Your task to perform on an android device: Open CNN.com Image 0: 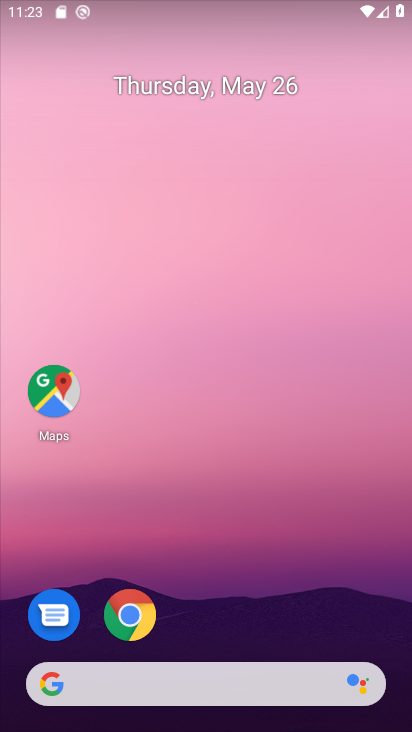
Step 0: click (173, 678)
Your task to perform on an android device: Open CNN.com Image 1: 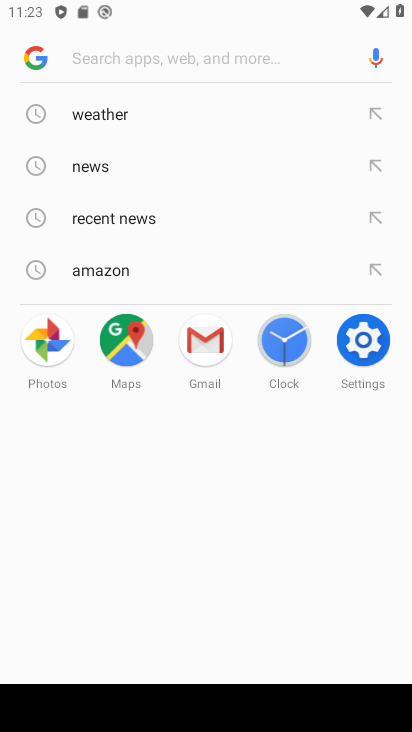
Step 1: type "CNN.com"
Your task to perform on an android device: Open CNN.com Image 2: 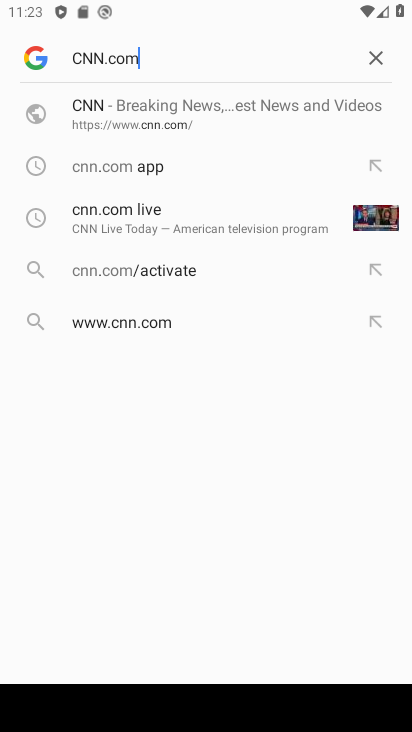
Step 2: click (181, 122)
Your task to perform on an android device: Open CNN.com Image 3: 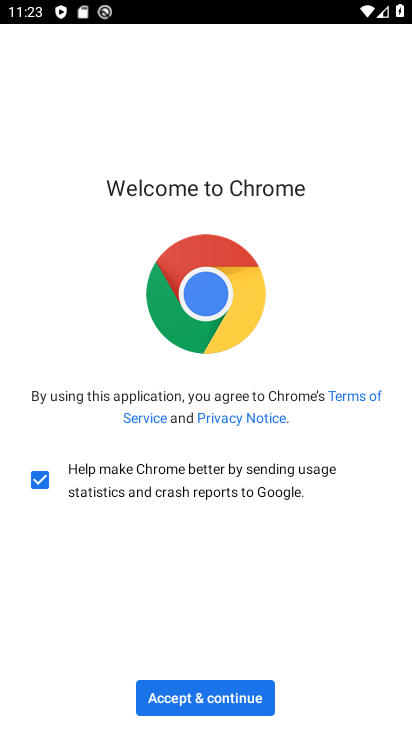
Step 3: click (232, 684)
Your task to perform on an android device: Open CNN.com Image 4: 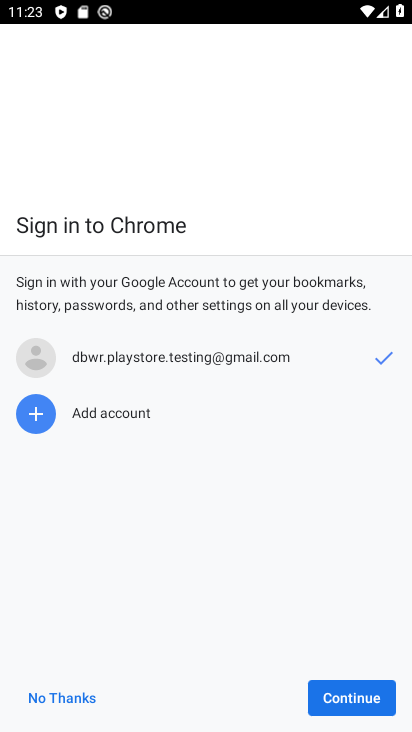
Step 4: click (385, 701)
Your task to perform on an android device: Open CNN.com Image 5: 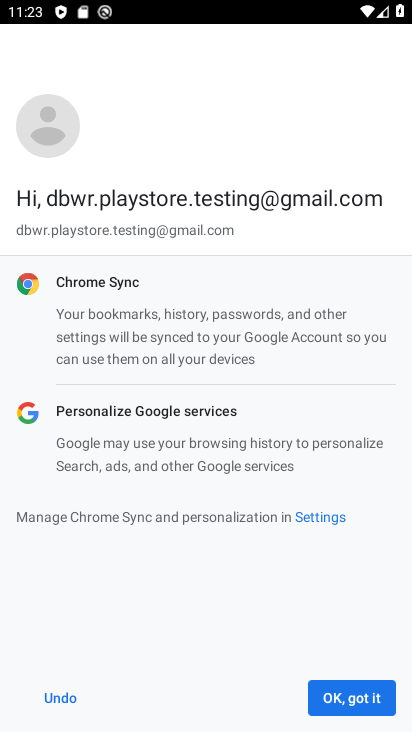
Step 5: click (346, 700)
Your task to perform on an android device: Open CNN.com Image 6: 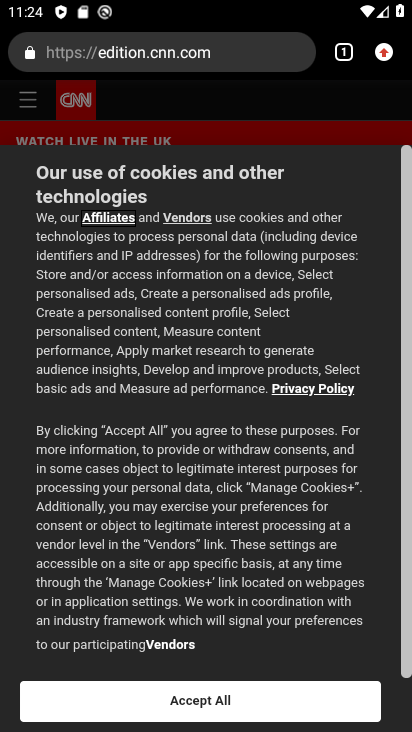
Step 6: click (245, 708)
Your task to perform on an android device: Open CNN.com Image 7: 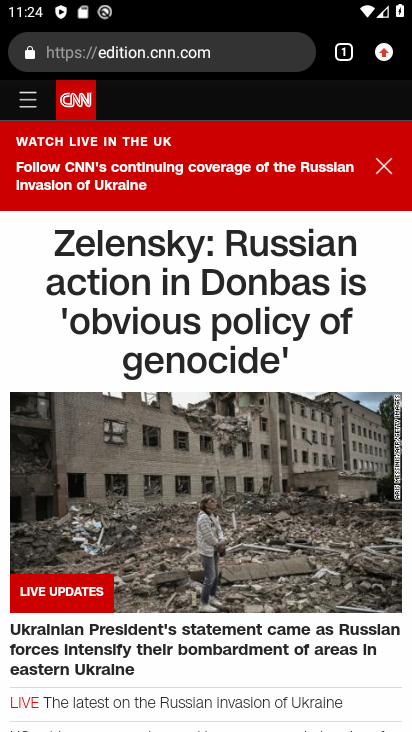
Step 7: task complete